Your task to perform on an android device: Empty the shopping cart on costco. Search for "macbook pro" on costco, select the first entry, and add it to the cart. Image 0: 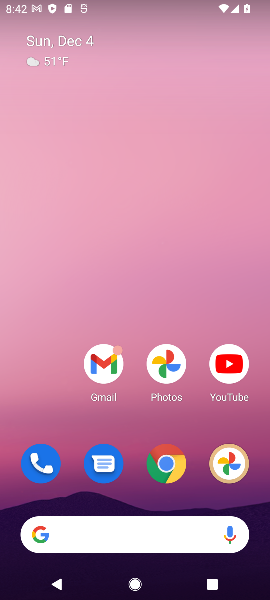
Step 0: click (167, 540)
Your task to perform on an android device: Empty the shopping cart on costco. Search for "macbook pro" on costco, select the first entry, and add it to the cart. Image 1: 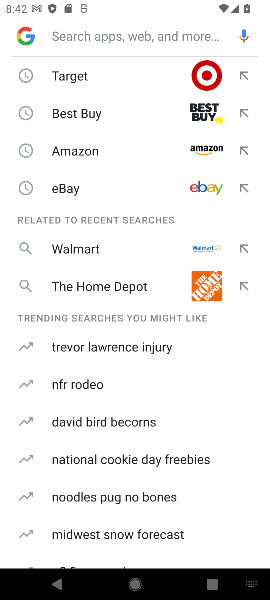
Step 1: task complete